Your task to perform on an android device: turn notification dots off Image 0: 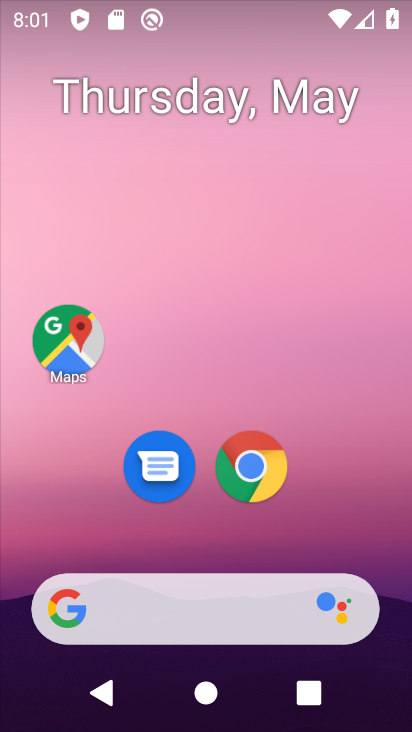
Step 0: drag from (249, 543) to (301, 0)
Your task to perform on an android device: turn notification dots off Image 1: 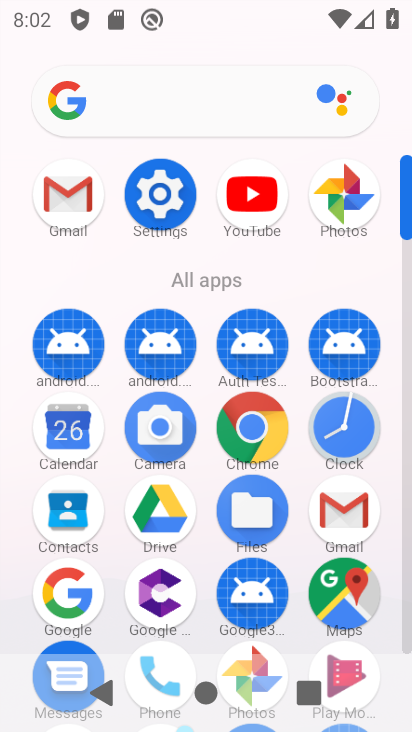
Step 1: click (175, 199)
Your task to perform on an android device: turn notification dots off Image 2: 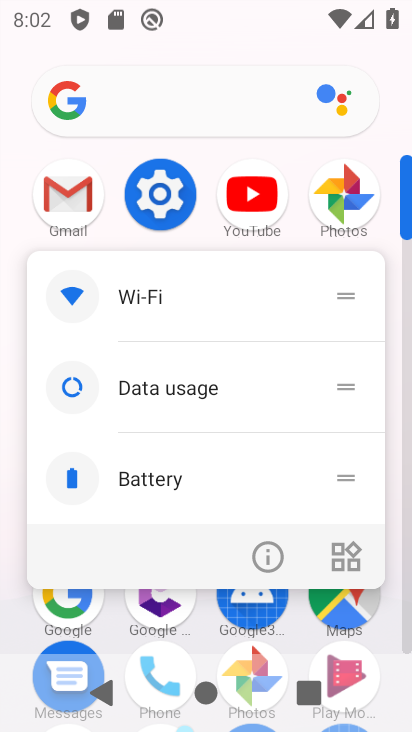
Step 2: click (155, 203)
Your task to perform on an android device: turn notification dots off Image 3: 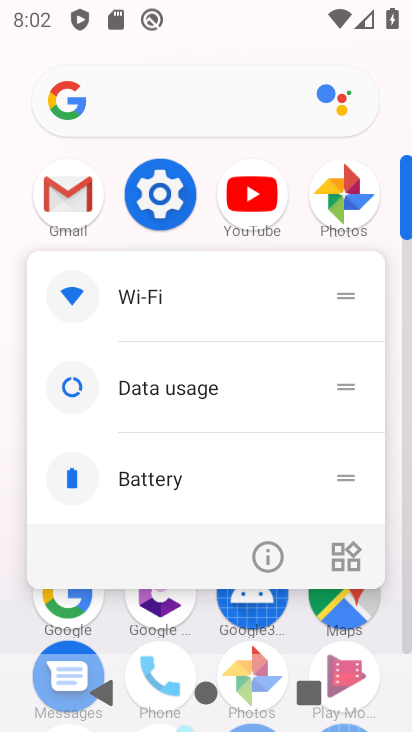
Step 3: click (154, 202)
Your task to perform on an android device: turn notification dots off Image 4: 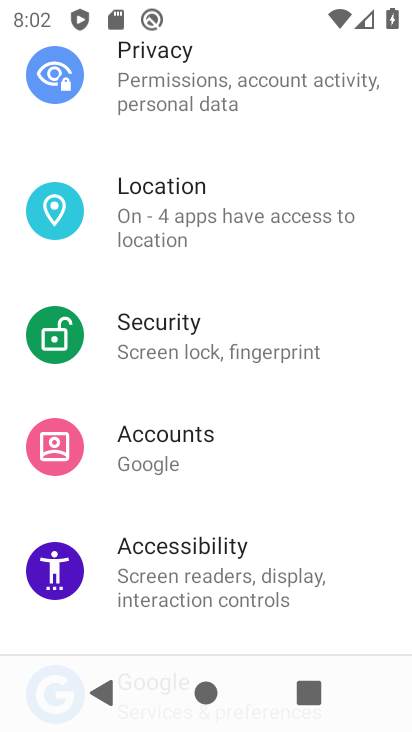
Step 4: drag from (168, 230) to (168, 620)
Your task to perform on an android device: turn notification dots off Image 5: 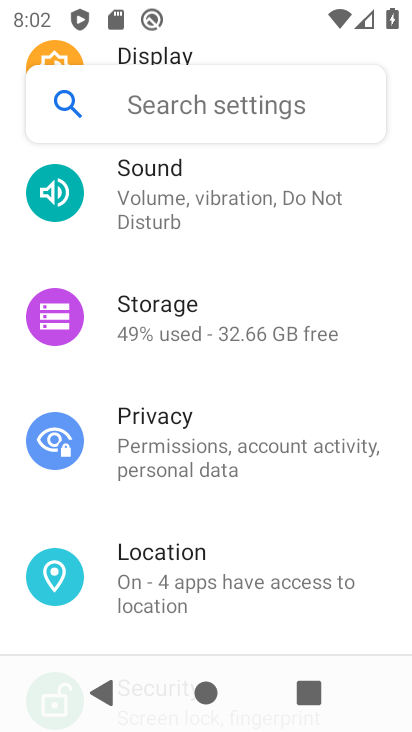
Step 5: drag from (175, 178) to (188, 673)
Your task to perform on an android device: turn notification dots off Image 6: 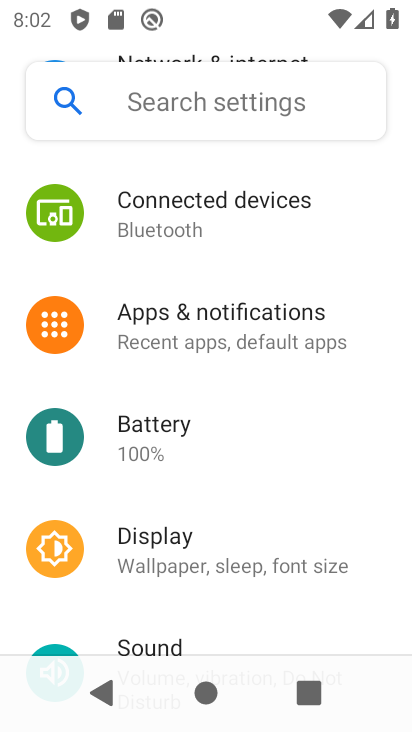
Step 6: click (198, 345)
Your task to perform on an android device: turn notification dots off Image 7: 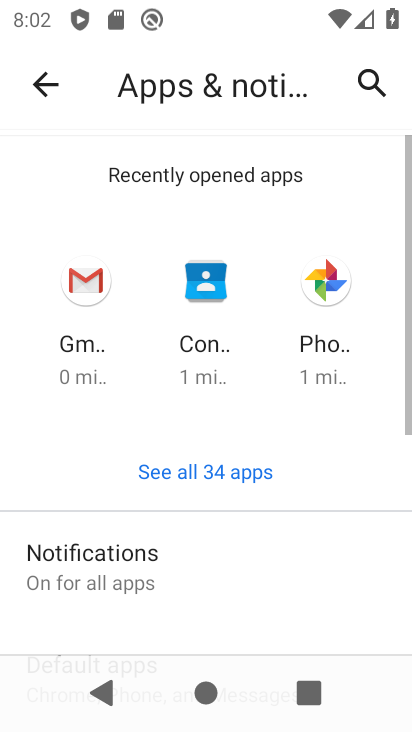
Step 7: click (174, 566)
Your task to perform on an android device: turn notification dots off Image 8: 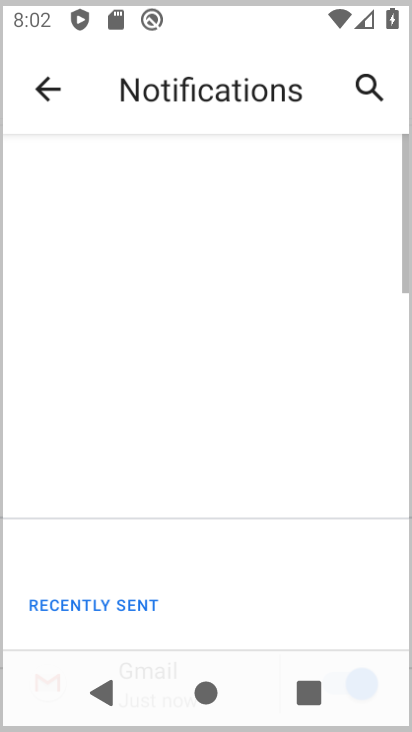
Step 8: drag from (174, 563) to (114, 24)
Your task to perform on an android device: turn notification dots off Image 9: 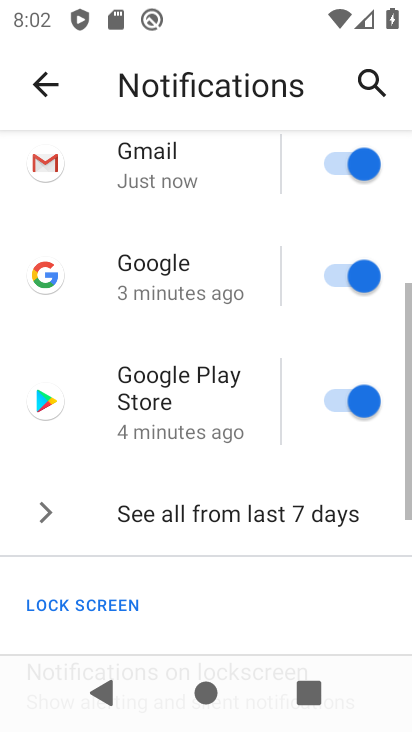
Step 9: drag from (192, 452) to (129, 6)
Your task to perform on an android device: turn notification dots off Image 10: 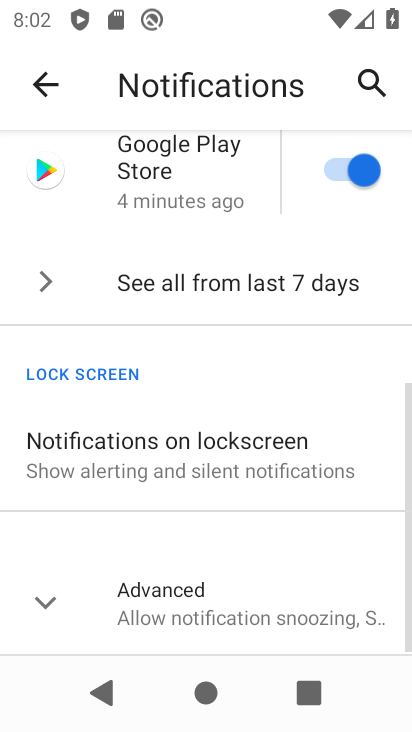
Step 10: click (232, 592)
Your task to perform on an android device: turn notification dots off Image 11: 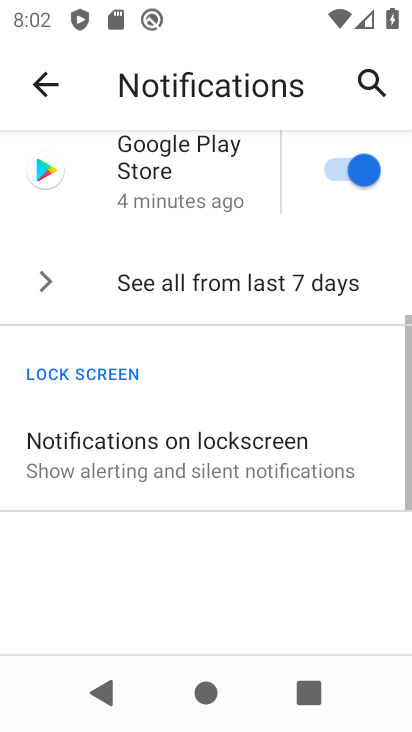
Step 11: drag from (232, 592) to (156, 98)
Your task to perform on an android device: turn notification dots off Image 12: 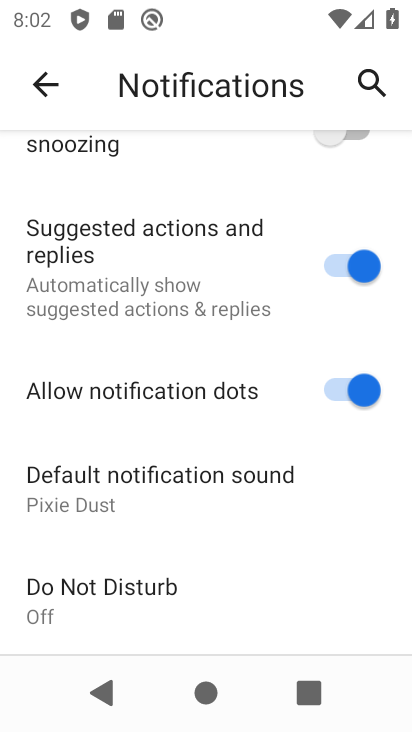
Step 12: click (341, 391)
Your task to perform on an android device: turn notification dots off Image 13: 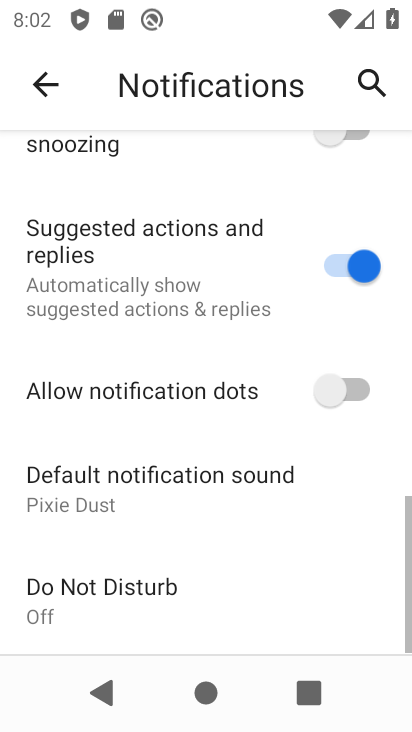
Step 13: task complete